Your task to perform on an android device: Go to Maps Image 0: 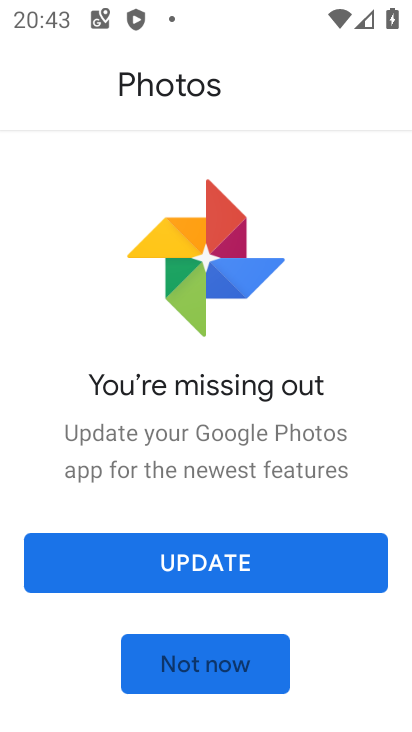
Step 0: press home button
Your task to perform on an android device: Go to Maps Image 1: 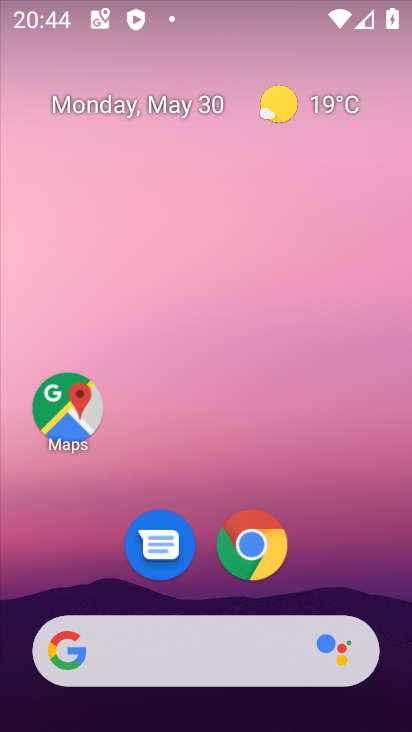
Step 1: click (62, 409)
Your task to perform on an android device: Go to Maps Image 2: 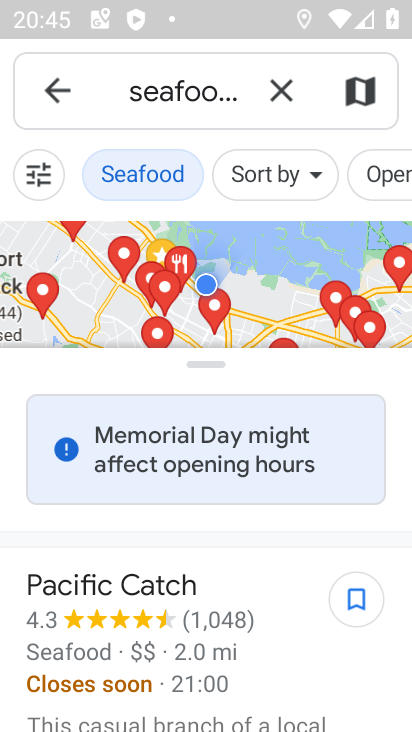
Step 2: task complete